Your task to perform on an android device: install app "Google Duo" Image 0: 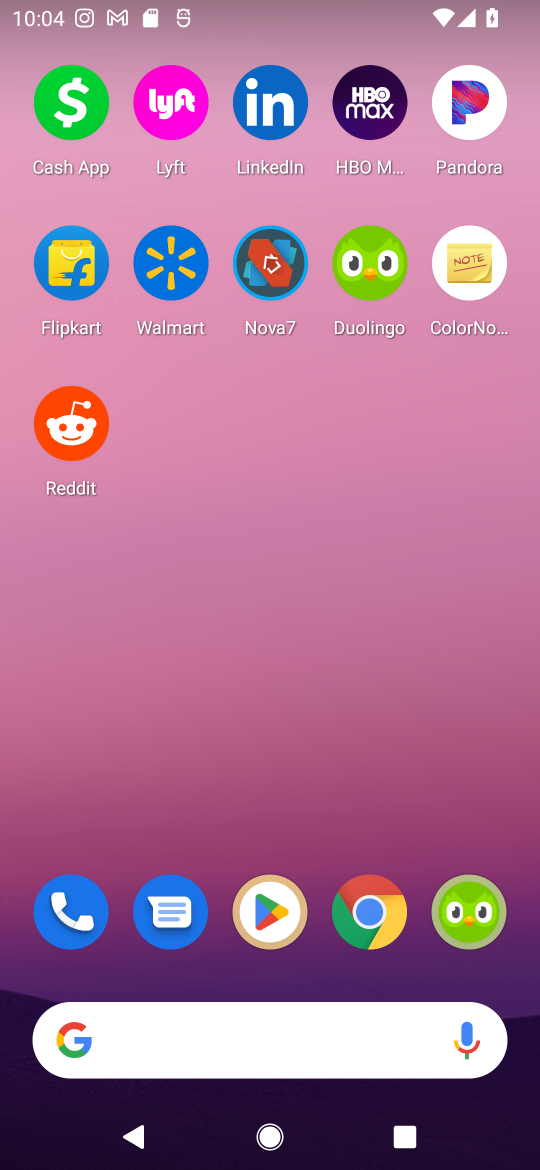
Step 0: click (273, 913)
Your task to perform on an android device: install app "Google Duo" Image 1: 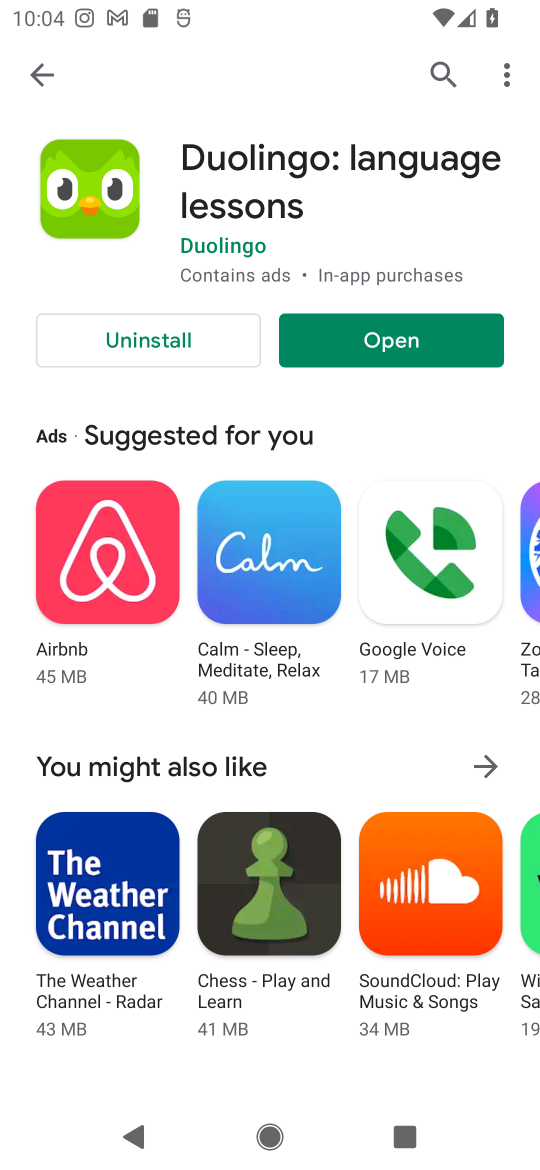
Step 1: click (431, 69)
Your task to perform on an android device: install app "Google Duo" Image 2: 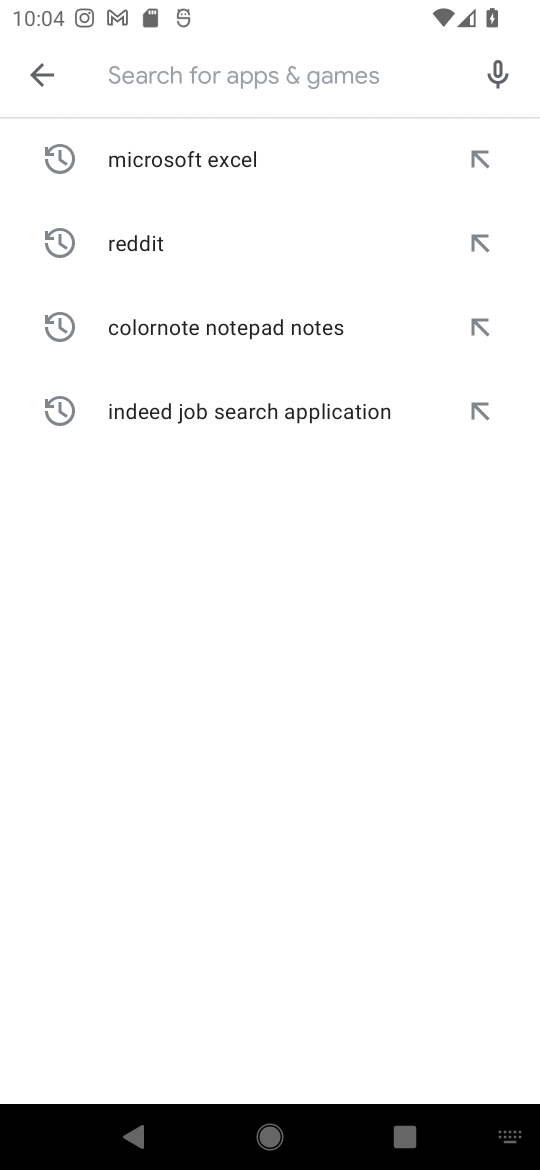
Step 2: type "Google Duo"
Your task to perform on an android device: install app "Google Duo" Image 3: 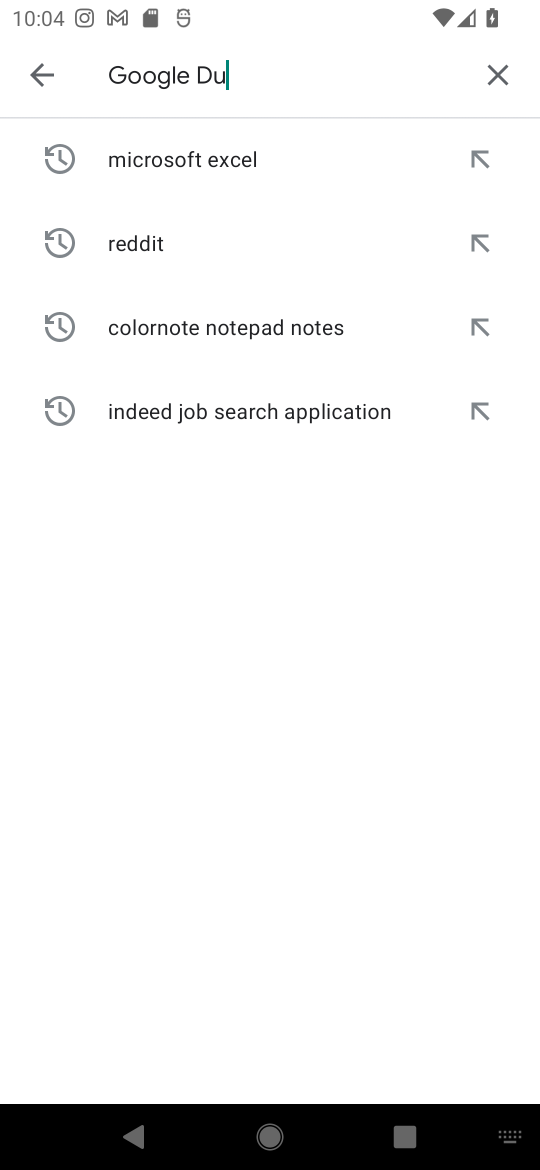
Step 3: type ""
Your task to perform on an android device: install app "Google Duo" Image 4: 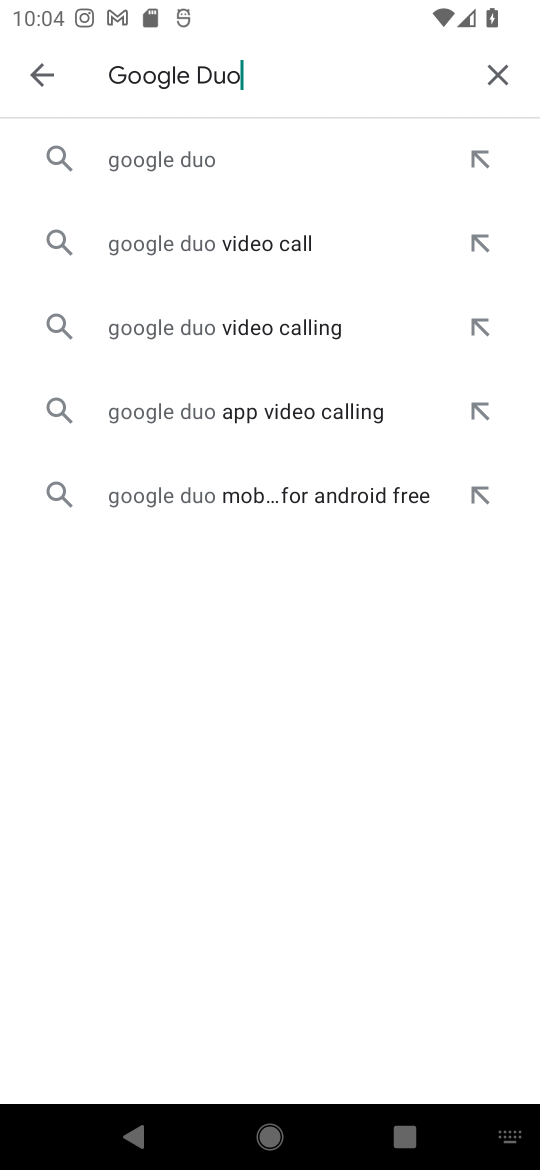
Step 4: click (159, 149)
Your task to perform on an android device: install app "Google Duo" Image 5: 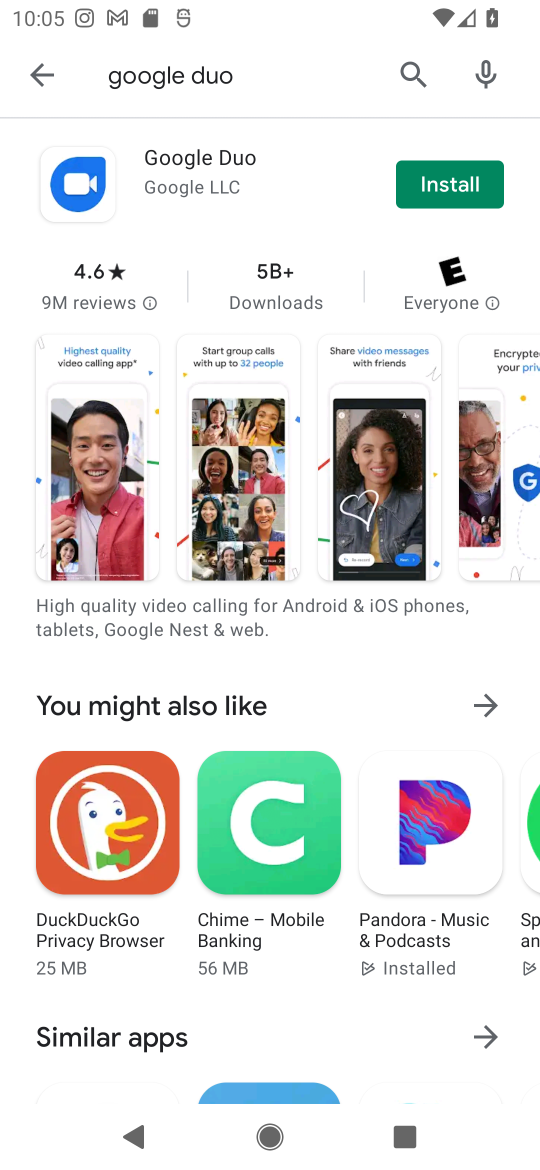
Step 5: click (431, 198)
Your task to perform on an android device: install app "Google Duo" Image 6: 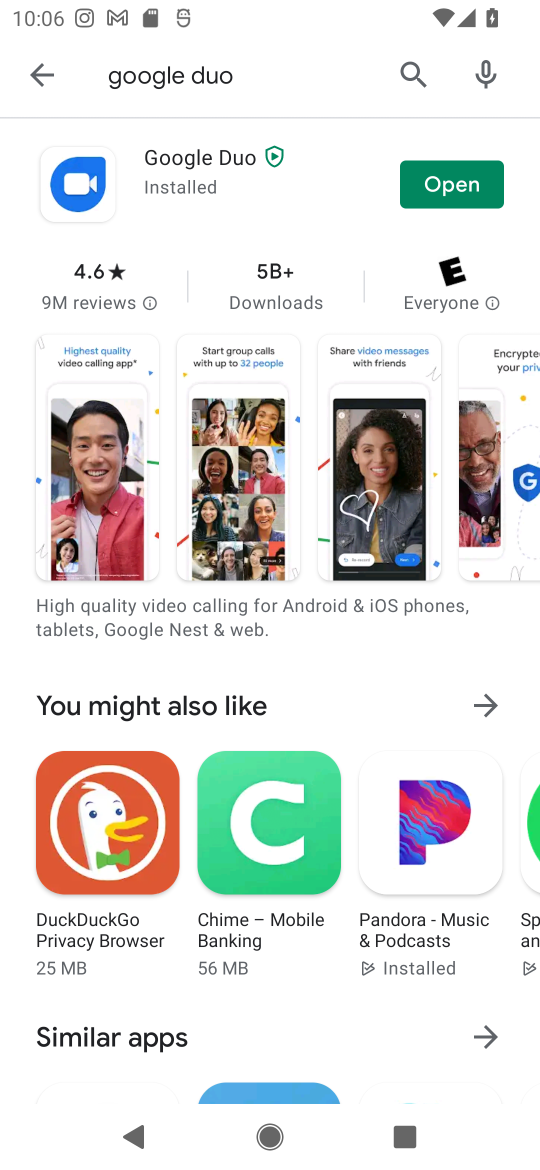
Step 6: task complete